Your task to perform on an android device: Open the phone app and click the voicemail tab. Image 0: 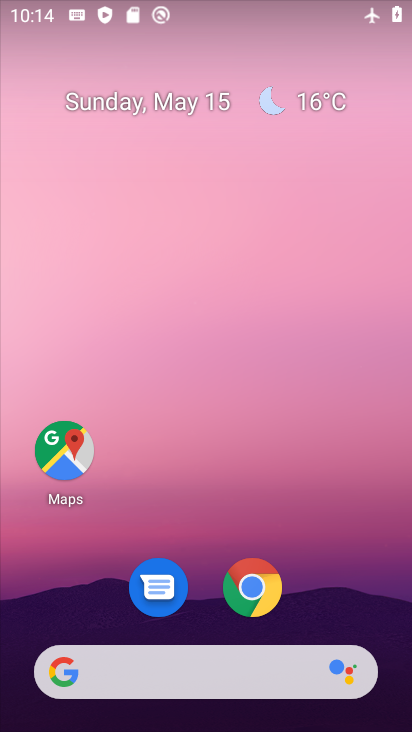
Step 0: drag from (314, 572) to (290, 7)
Your task to perform on an android device: Open the phone app and click the voicemail tab. Image 1: 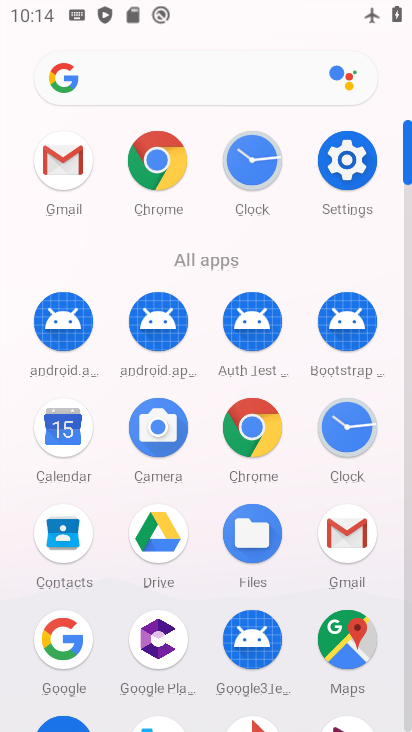
Step 1: drag from (17, 559) to (4, 272)
Your task to perform on an android device: Open the phone app and click the voicemail tab. Image 2: 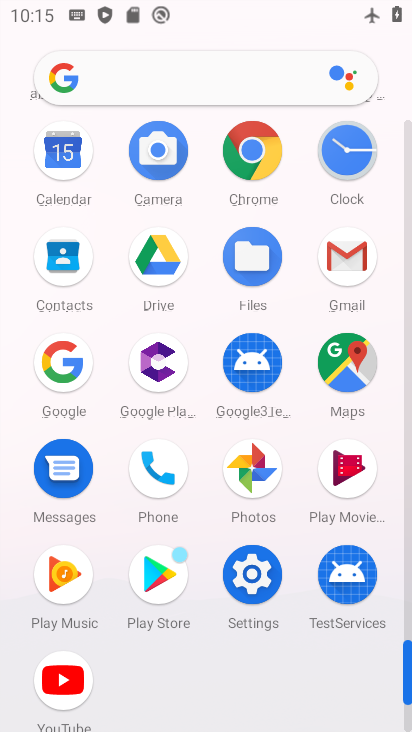
Step 2: click (344, 466)
Your task to perform on an android device: Open the phone app and click the voicemail tab. Image 3: 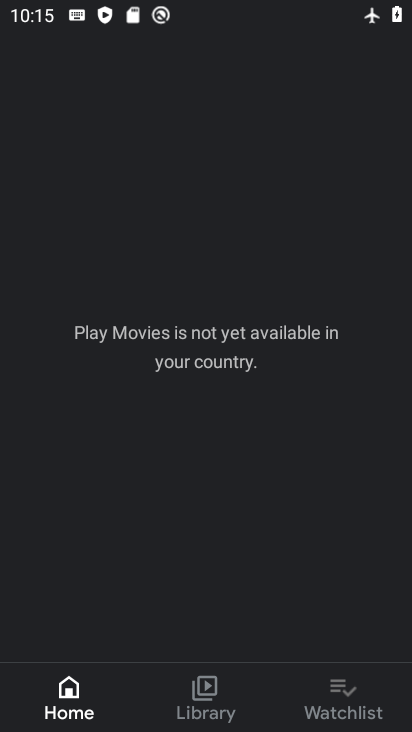
Step 3: click (328, 689)
Your task to perform on an android device: Open the phone app and click the voicemail tab. Image 4: 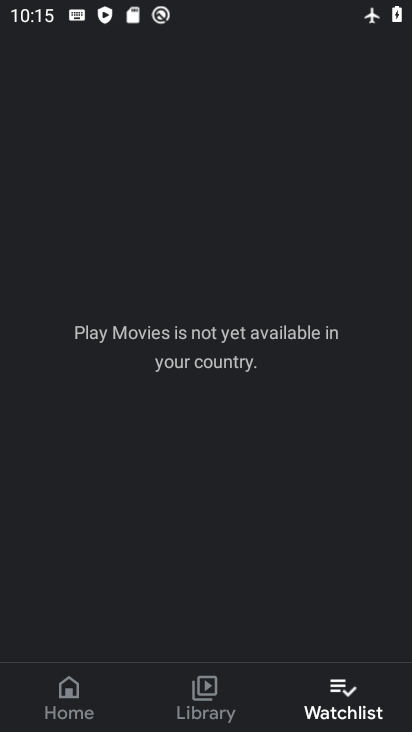
Step 4: task complete